Your task to perform on an android device: Is it going to rain this weekend? Image 0: 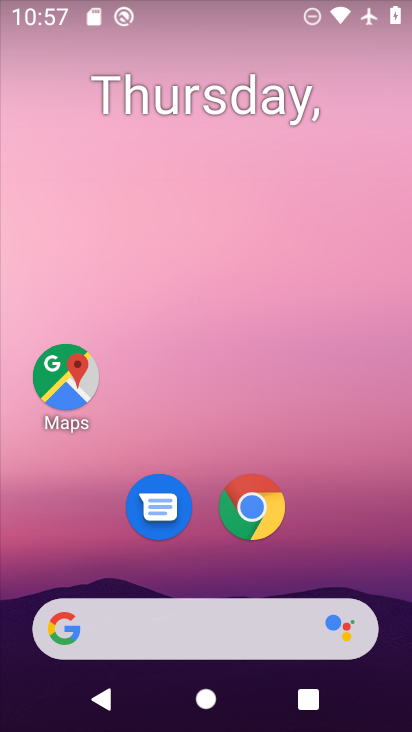
Step 0: drag from (358, 488) to (286, 23)
Your task to perform on an android device: Is it going to rain this weekend? Image 1: 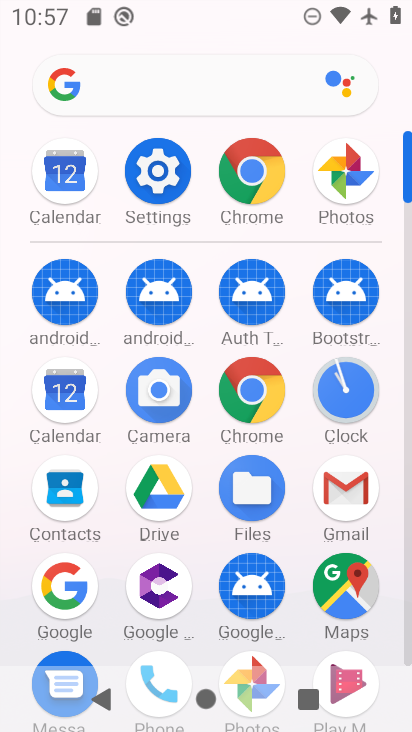
Step 1: drag from (4, 586) to (11, 249)
Your task to perform on an android device: Is it going to rain this weekend? Image 2: 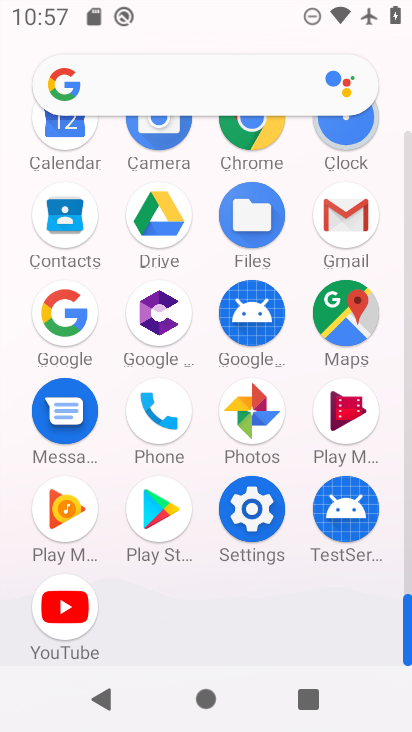
Step 2: click (248, 128)
Your task to perform on an android device: Is it going to rain this weekend? Image 3: 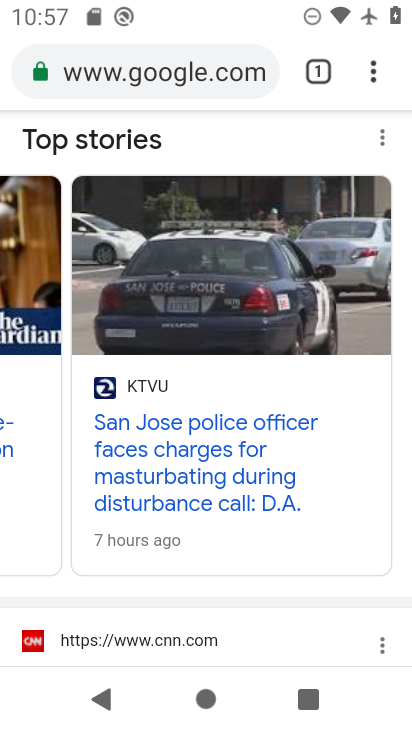
Step 3: click (214, 67)
Your task to perform on an android device: Is it going to rain this weekend? Image 4: 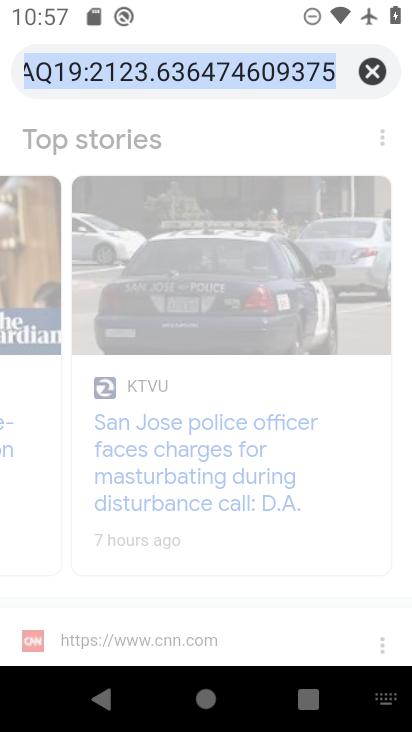
Step 4: click (377, 74)
Your task to perform on an android device: Is it going to rain this weekend? Image 5: 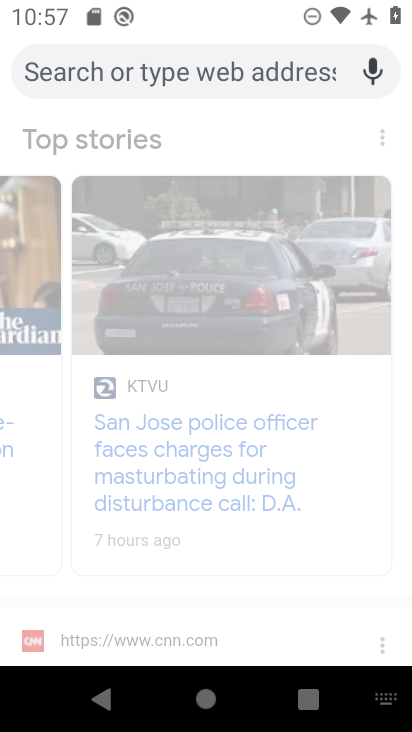
Step 5: type "Is it going to rain this weekend?"
Your task to perform on an android device: Is it going to rain this weekend? Image 6: 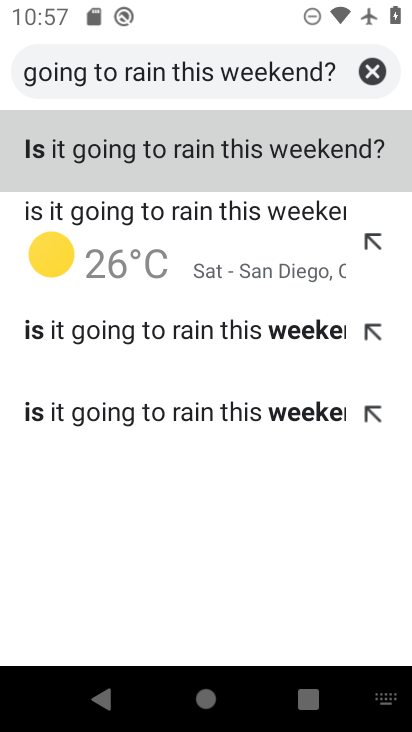
Step 6: click (129, 221)
Your task to perform on an android device: Is it going to rain this weekend? Image 7: 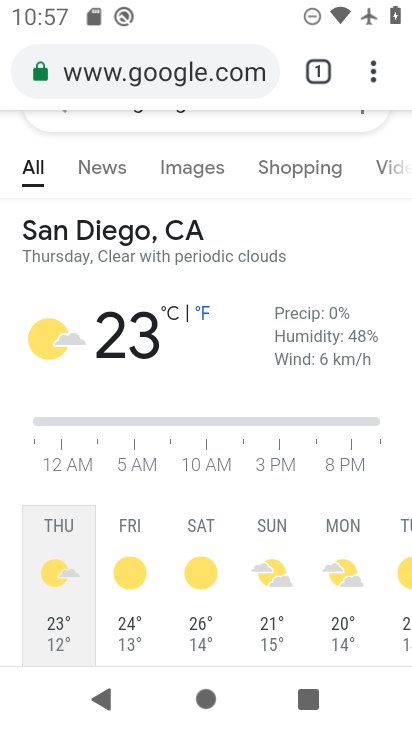
Step 7: click (193, 557)
Your task to perform on an android device: Is it going to rain this weekend? Image 8: 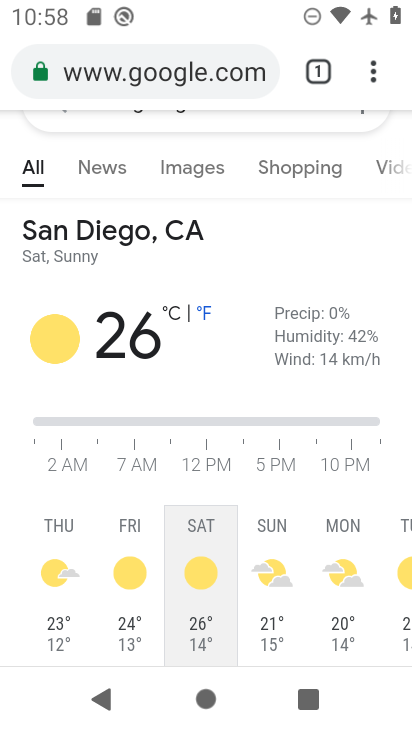
Step 8: task complete